Your task to perform on an android device: turn pop-ups on in chrome Image 0: 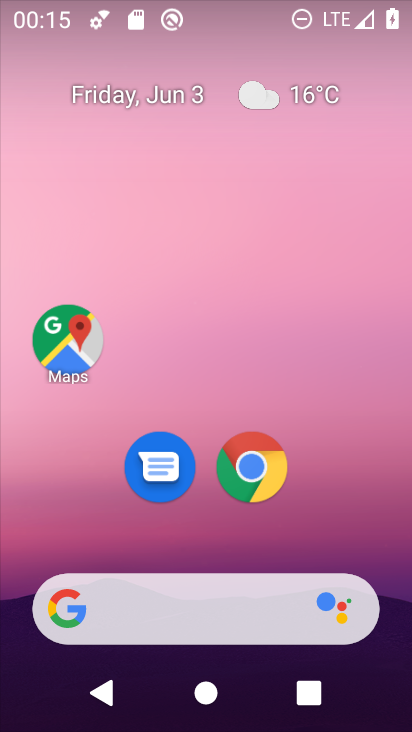
Step 0: click (252, 465)
Your task to perform on an android device: turn pop-ups on in chrome Image 1: 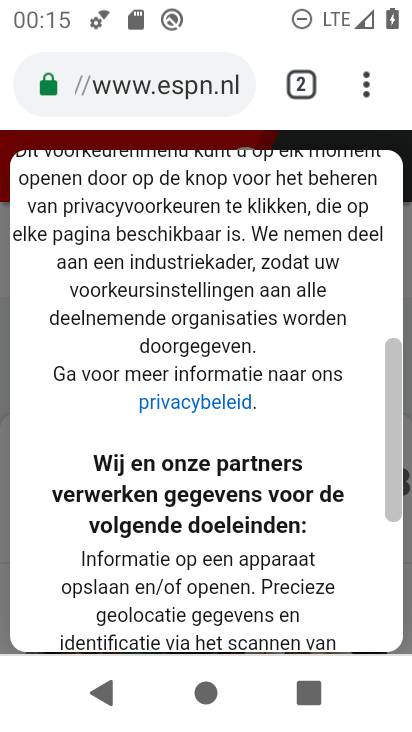
Step 1: click (361, 89)
Your task to perform on an android device: turn pop-ups on in chrome Image 2: 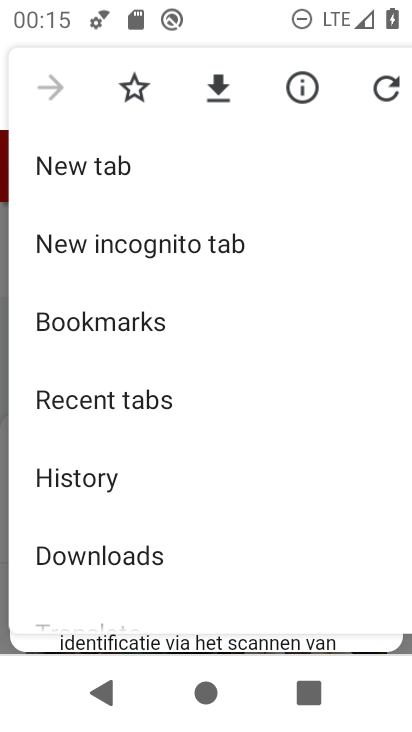
Step 2: drag from (184, 549) to (337, 21)
Your task to perform on an android device: turn pop-ups on in chrome Image 3: 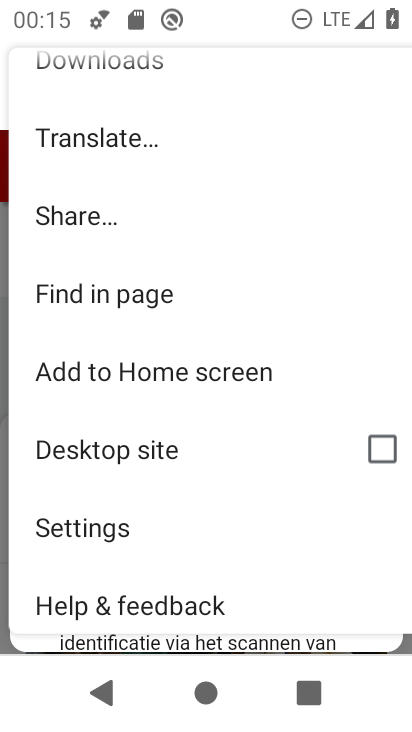
Step 3: click (111, 518)
Your task to perform on an android device: turn pop-ups on in chrome Image 4: 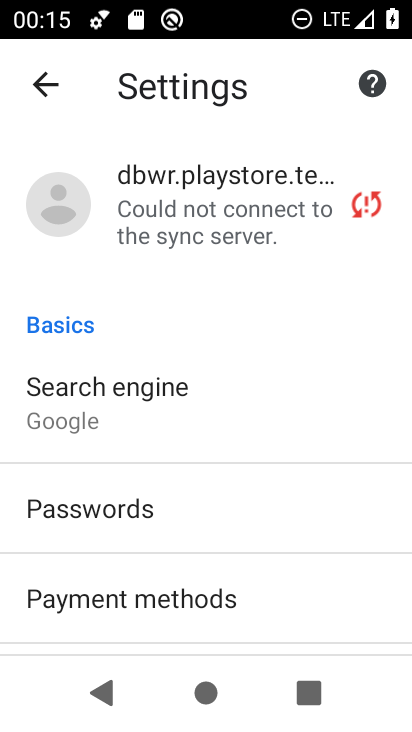
Step 4: drag from (287, 608) to (288, 317)
Your task to perform on an android device: turn pop-ups on in chrome Image 5: 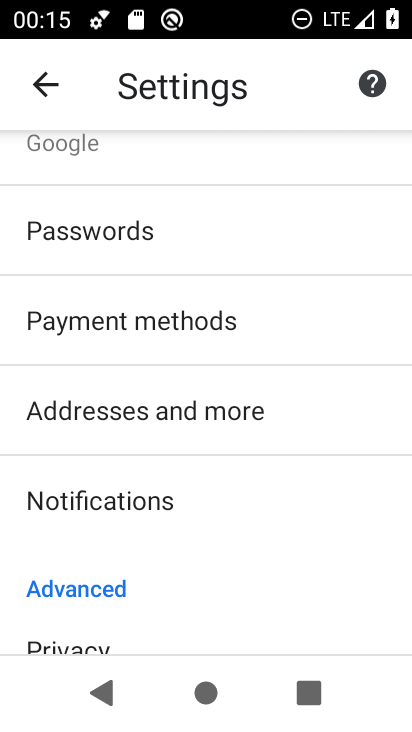
Step 5: drag from (233, 613) to (352, 231)
Your task to perform on an android device: turn pop-ups on in chrome Image 6: 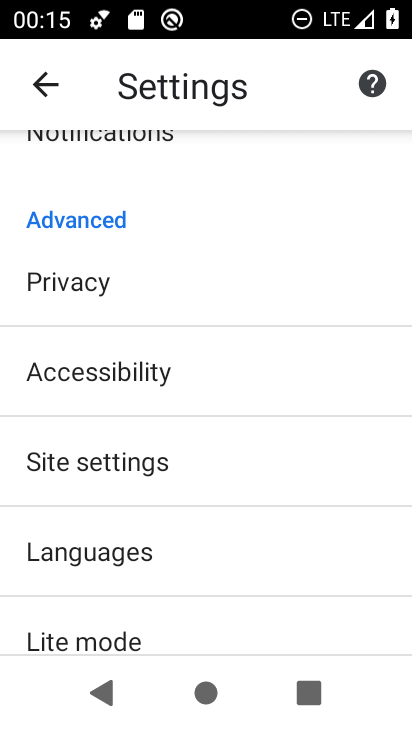
Step 6: click (87, 475)
Your task to perform on an android device: turn pop-ups on in chrome Image 7: 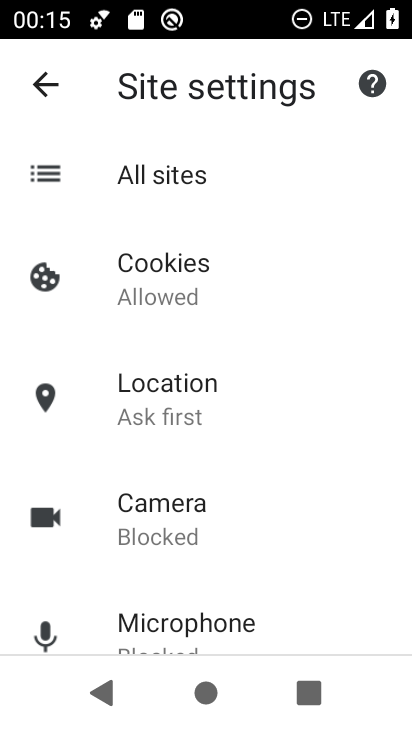
Step 7: drag from (251, 609) to (301, 63)
Your task to perform on an android device: turn pop-ups on in chrome Image 8: 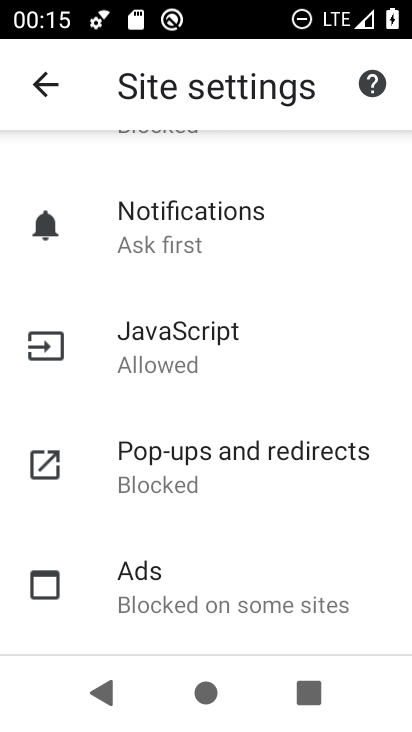
Step 8: click (140, 450)
Your task to perform on an android device: turn pop-ups on in chrome Image 9: 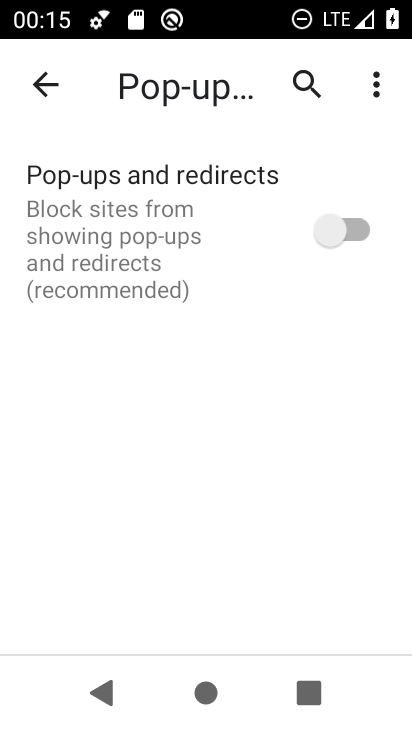
Step 9: click (363, 228)
Your task to perform on an android device: turn pop-ups on in chrome Image 10: 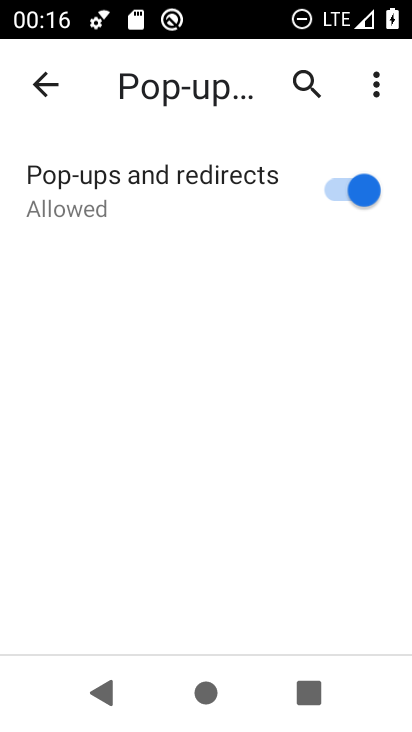
Step 10: task complete